Your task to perform on an android device: remove spam from my inbox in the gmail app Image 0: 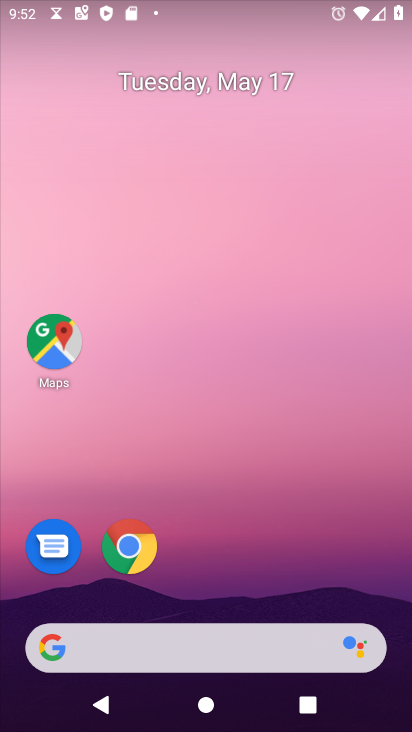
Step 0: drag from (255, 586) to (260, 12)
Your task to perform on an android device: remove spam from my inbox in the gmail app Image 1: 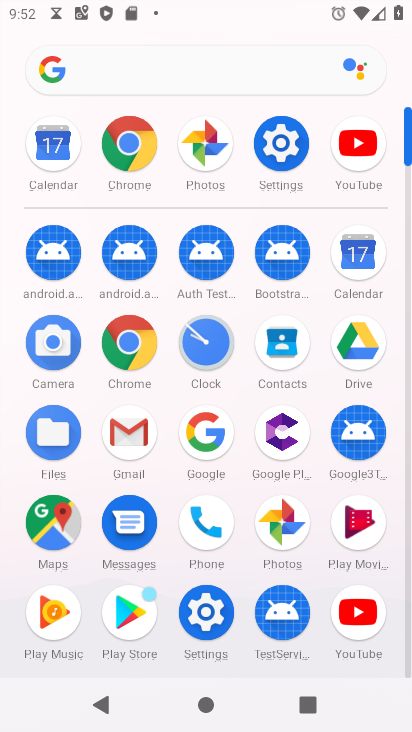
Step 1: click (119, 429)
Your task to perform on an android device: remove spam from my inbox in the gmail app Image 2: 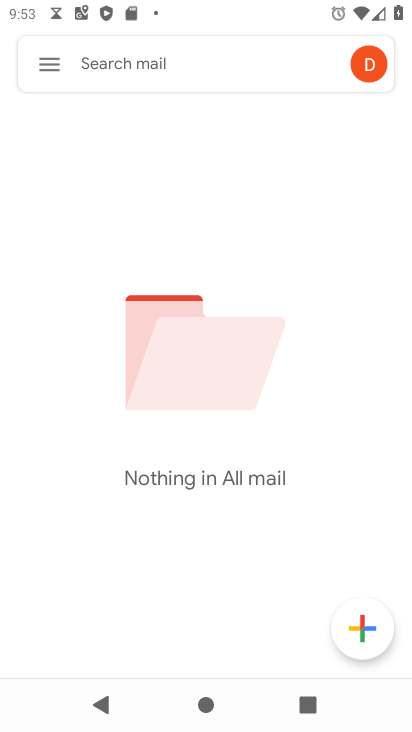
Step 2: click (40, 56)
Your task to perform on an android device: remove spam from my inbox in the gmail app Image 3: 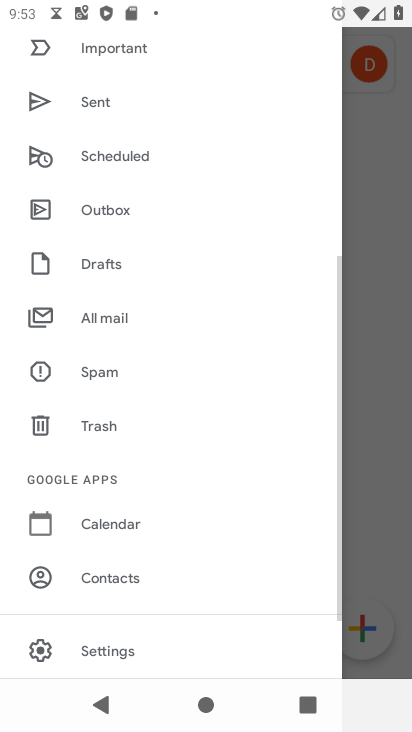
Step 3: click (98, 372)
Your task to perform on an android device: remove spam from my inbox in the gmail app Image 4: 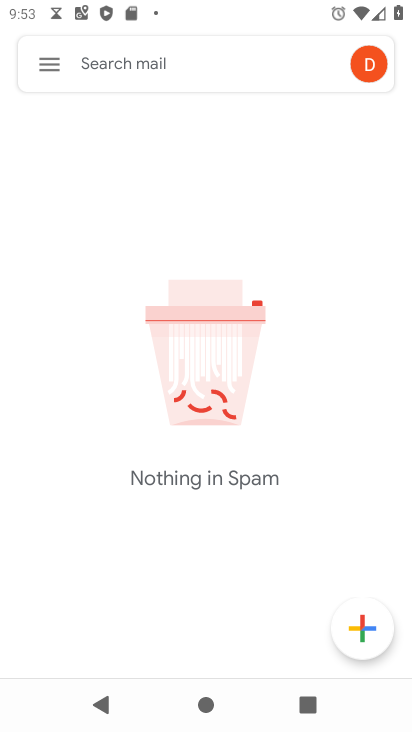
Step 4: task complete